Your task to perform on an android device: Open eBay Image 0: 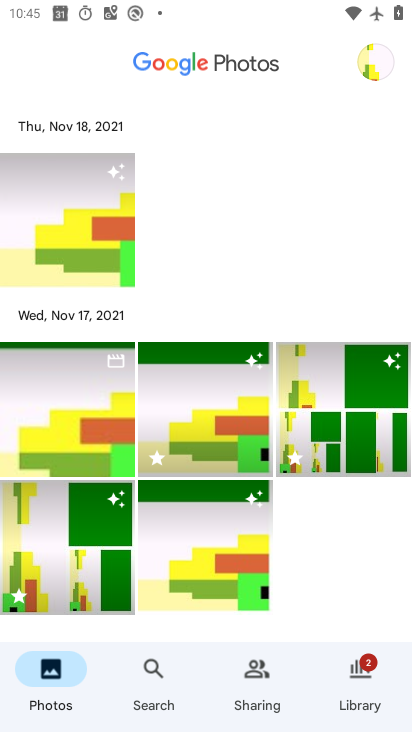
Step 0: press back button
Your task to perform on an android device: Open eBay Image 1: 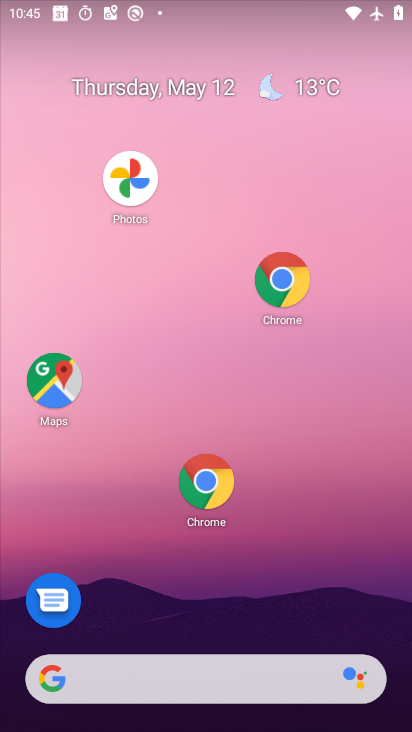
Step 1: drag from (317, 578) to (75, 57)
Your task to perform on an android device: Open eBay Image 2: 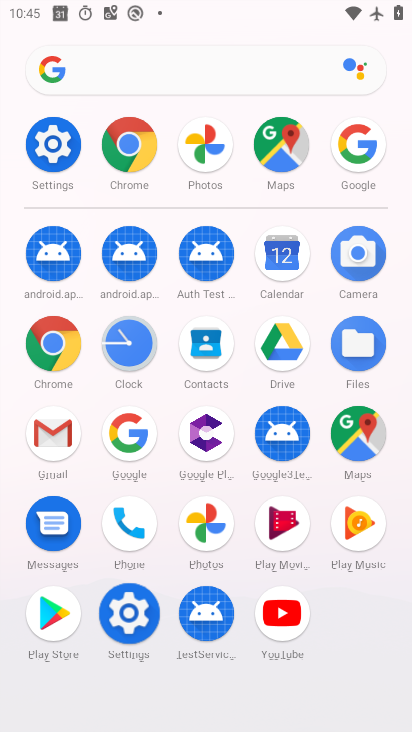
Step 2: click (130, 145)
Your task to perform on an android device: Open eBay Image 3: 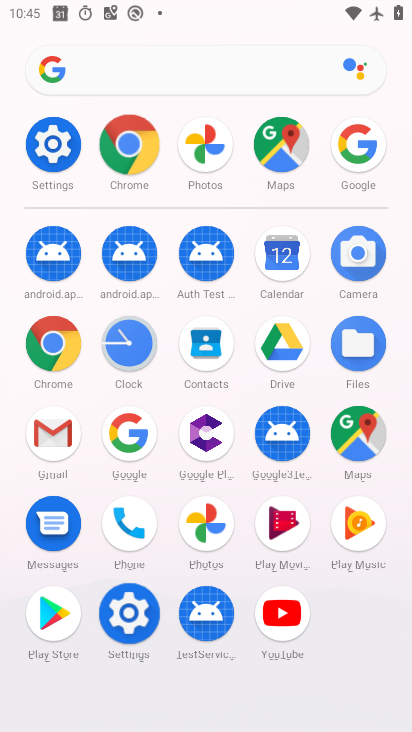
Step 3: click (131, 148)
Your task to perform on an android device: Open eBay Image 4: 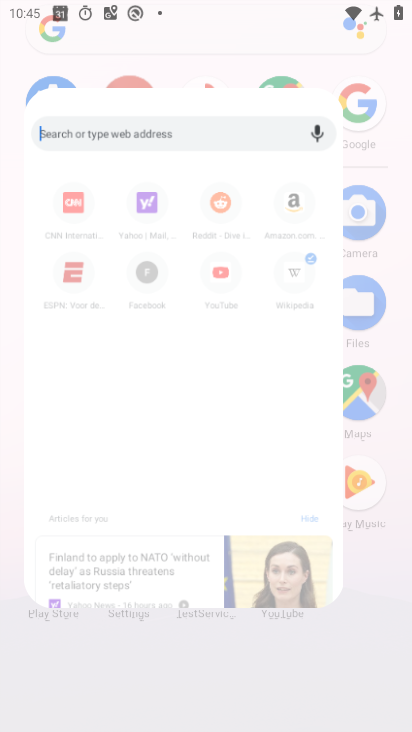
Step 4: click (130, 150)
Your task to perform on an android device: Open eBay Image 5: 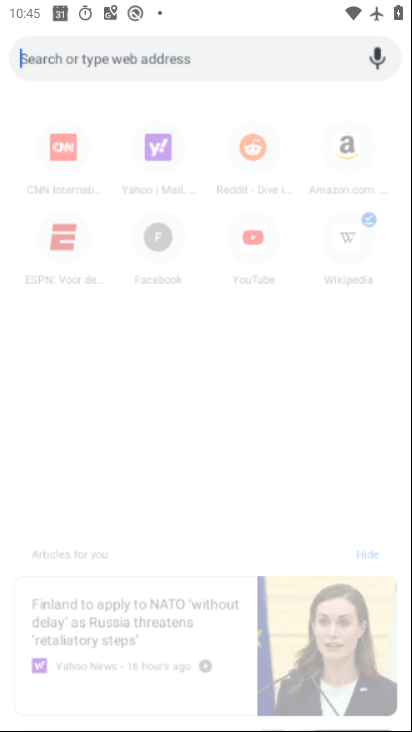
Step 5: click (130, 150)
Your task to perform on an android device: Open eBay Image 6: 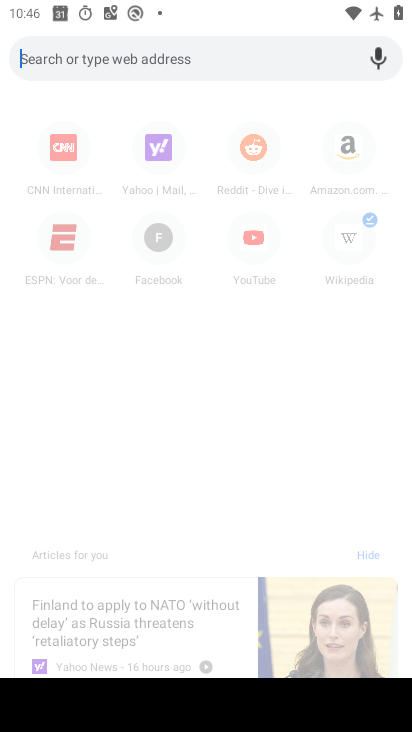
Step 6: click (25, 53)
Your task to perform on an android device: Open eBay Image 7: 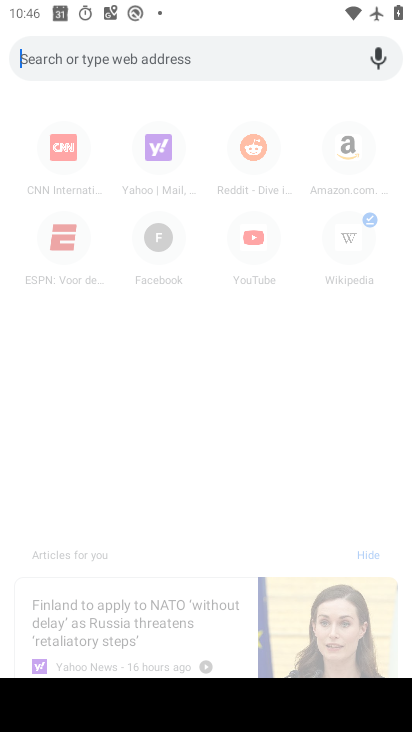
Step 7: click (25, 53)
Your task to perform on an android device: Open eBay Image 8: 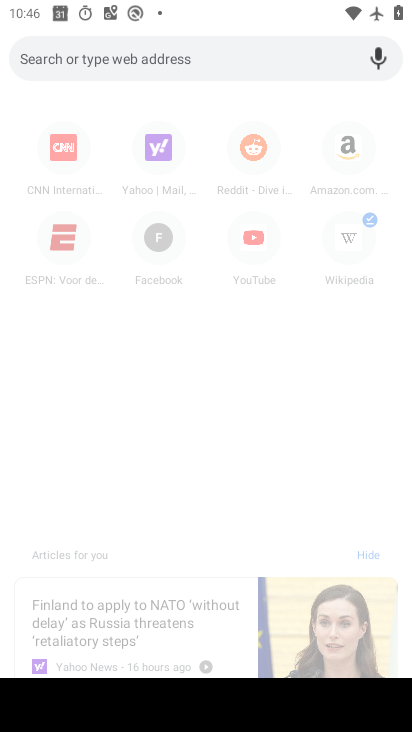
Step 8: type "www.ebay.com"
Your task to perform on an android device: Open eBay Image 9: 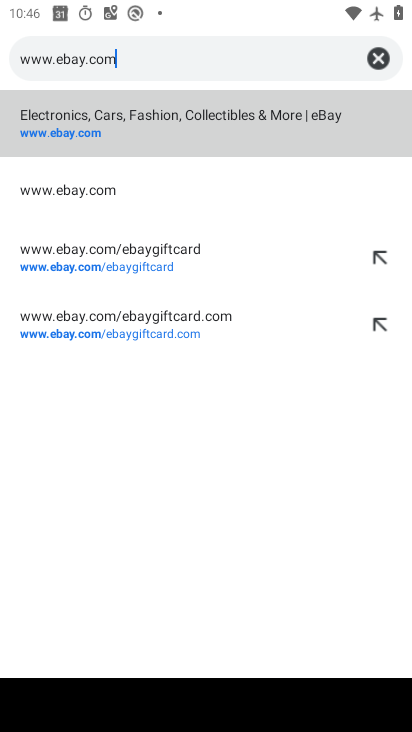
Step 9: click (59, 132)
Your task to perform on an android device: Open eBay Image 10: 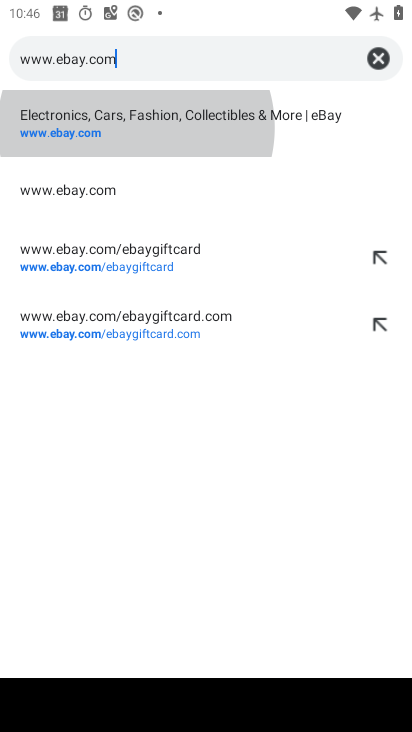
Step 10: click (60, 132)
Your task to perform on an android device: Open eBay Image 11: 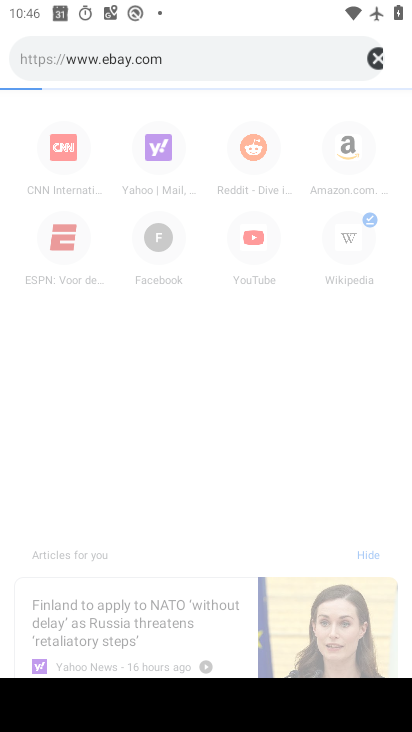
Step 11: click (60, 132)
Your task to perform on an android device: Open eBay Image 12: 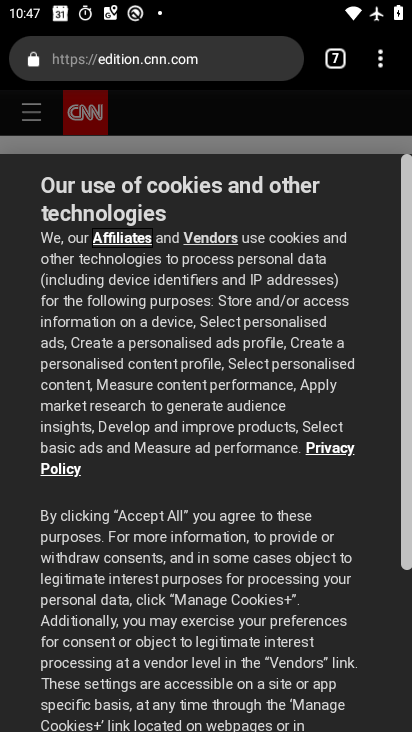
Step 12: task complete